Your task to perform on an android device: Open the phone app and click the voicemail tab. Image 0: 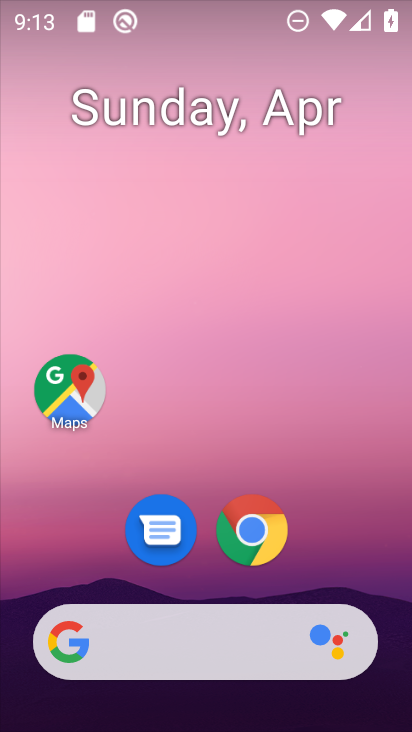
Step 0: drag from (407, 596) to (405, 4)
Your task to perform on an android device: Open the phone app and click the voicemail tab. Image 1: 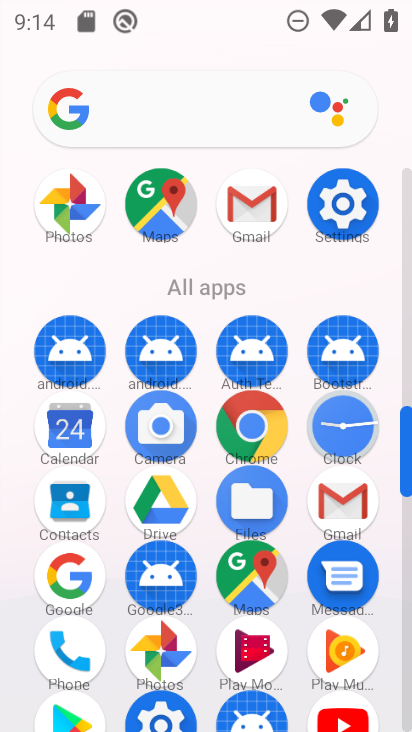
Step 1: drag from (407, 531) to (411, 430)
Your task to perform on an android device: Open the phone app and click the voicemail tab. Image 2: 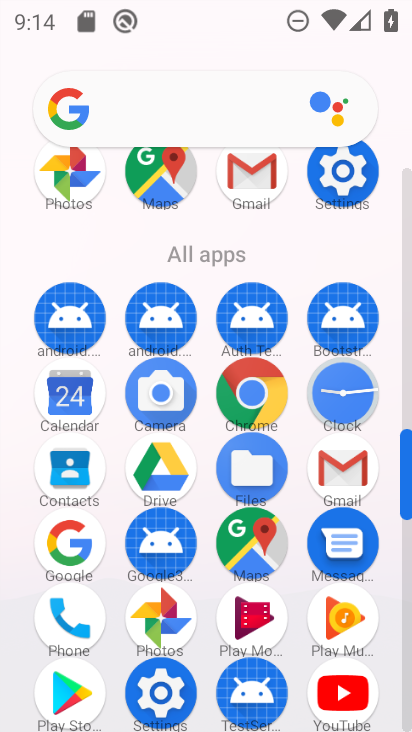
Step 2: click (68, 621)
Your task to perform on an android device: Open the phone app and click the voicemail tab. Image 3: 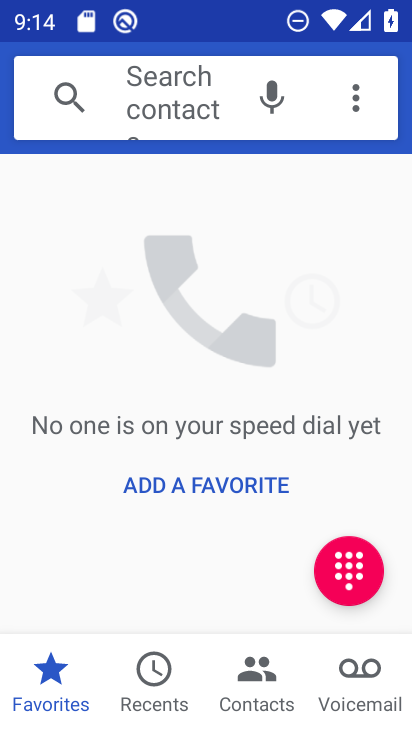
Step 3: click (358, 702)
Your task to perform on an android device: Open the phone app and click the voicemail tab. Image 4: 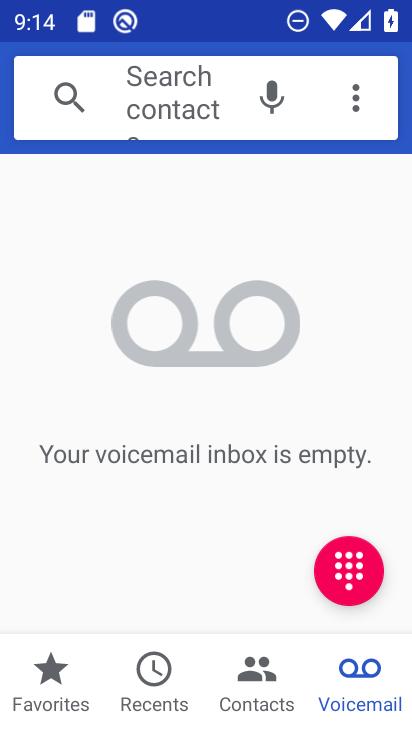
Step 4: task complete